Your task to perform on an android device: Empty the shopping cart on walmart. Add usb-c to usb-b to the cart on walmart Image 0: 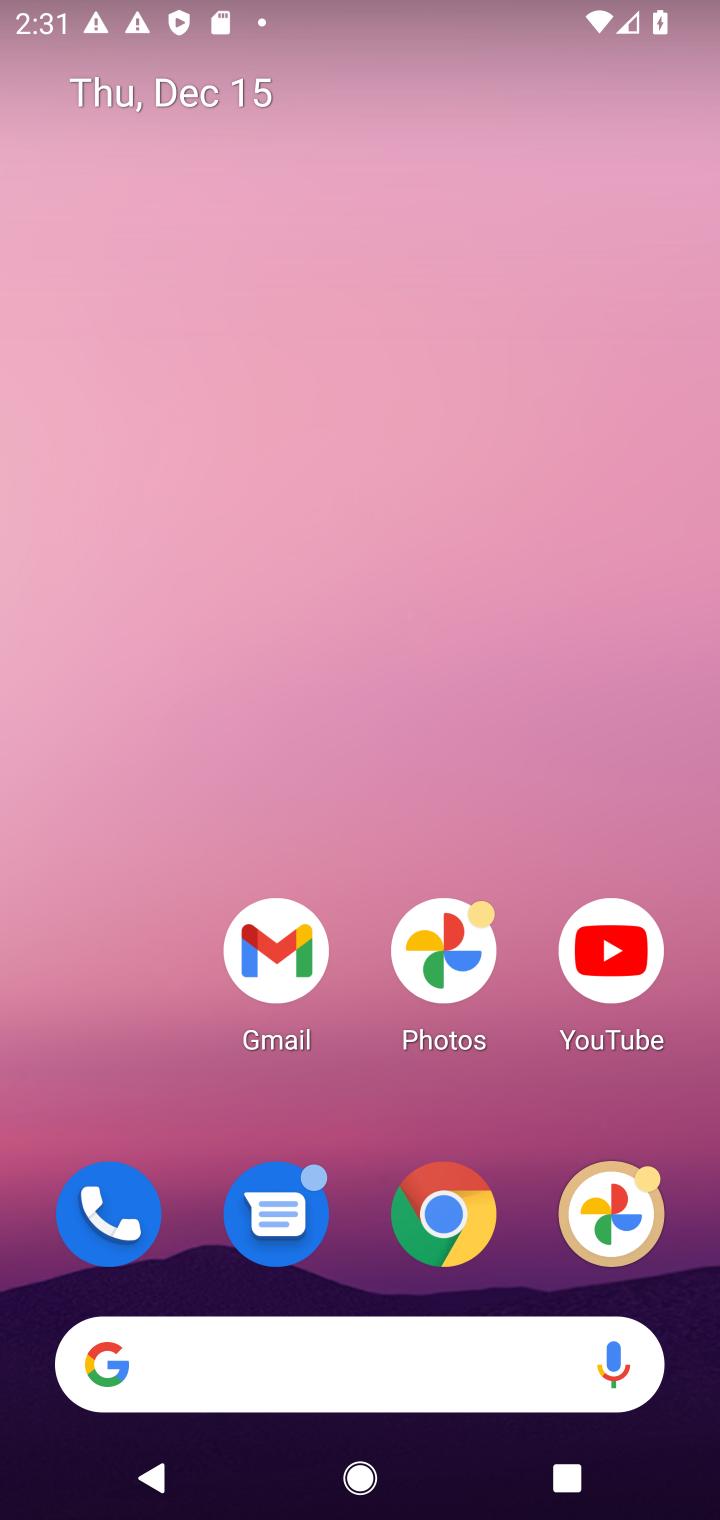
Step 0: click (432, 1223)
Your task to perform on an android device: Empty the shopping cart on walmart. Add usb-c to usb-b to the cart on walmart Image 1: 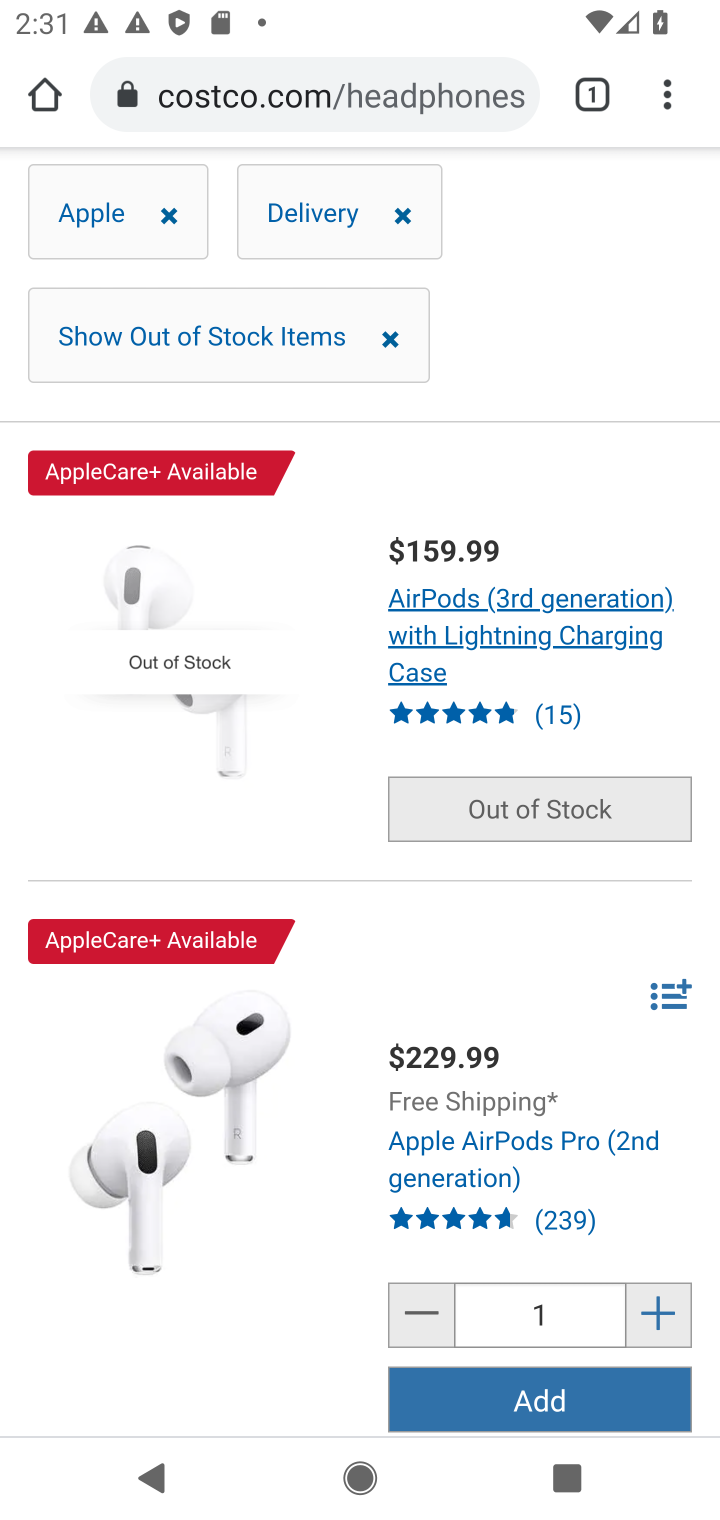
Step 1: click (222, 101)
Your task to perform on an android device: Empty the shopping cart on walmart. Add usb-c to usb-b to the cart on walmart Image 2: 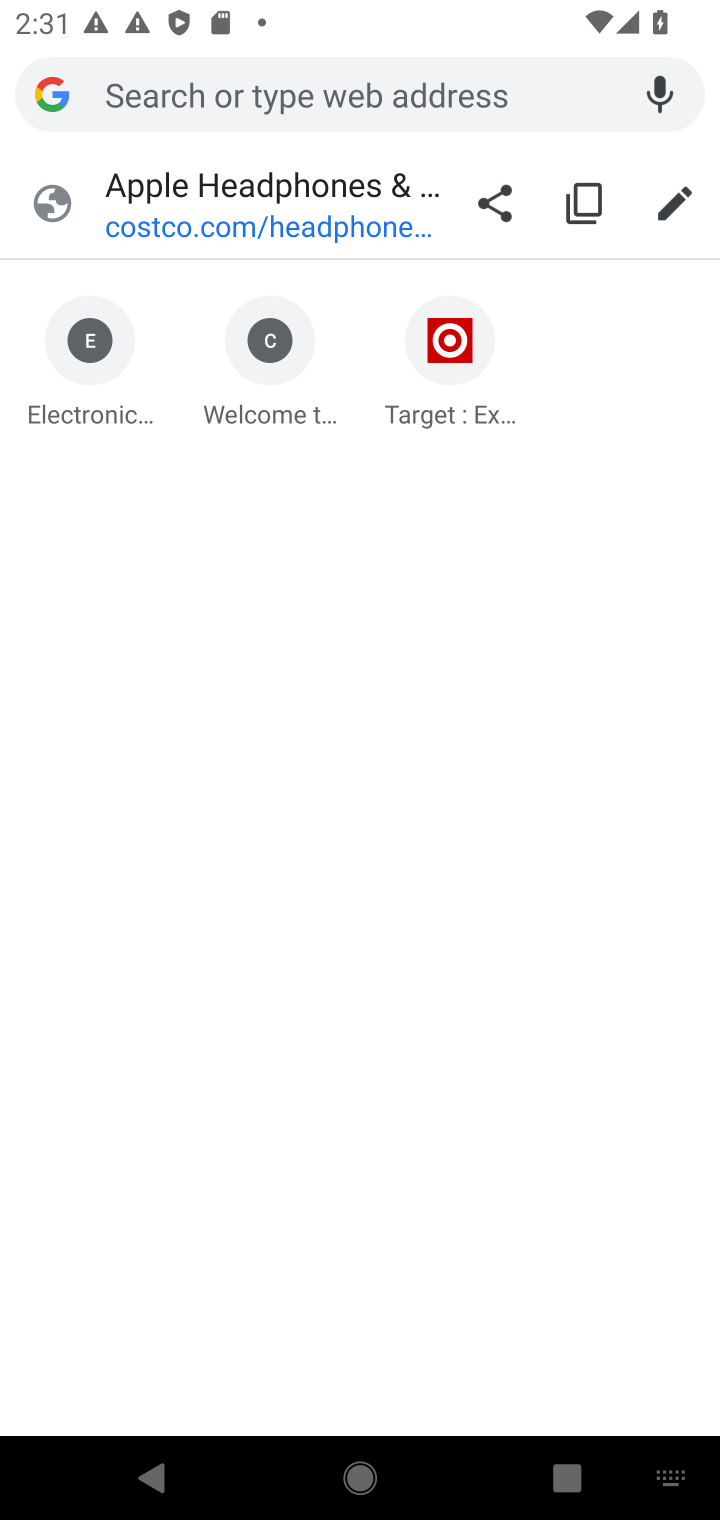
Step 2: type "walmart.com"
Your task to perform on an android device: Empty the shopping cart on walmart. Add usb-c to usb-b to the cart on walmart Image 3: 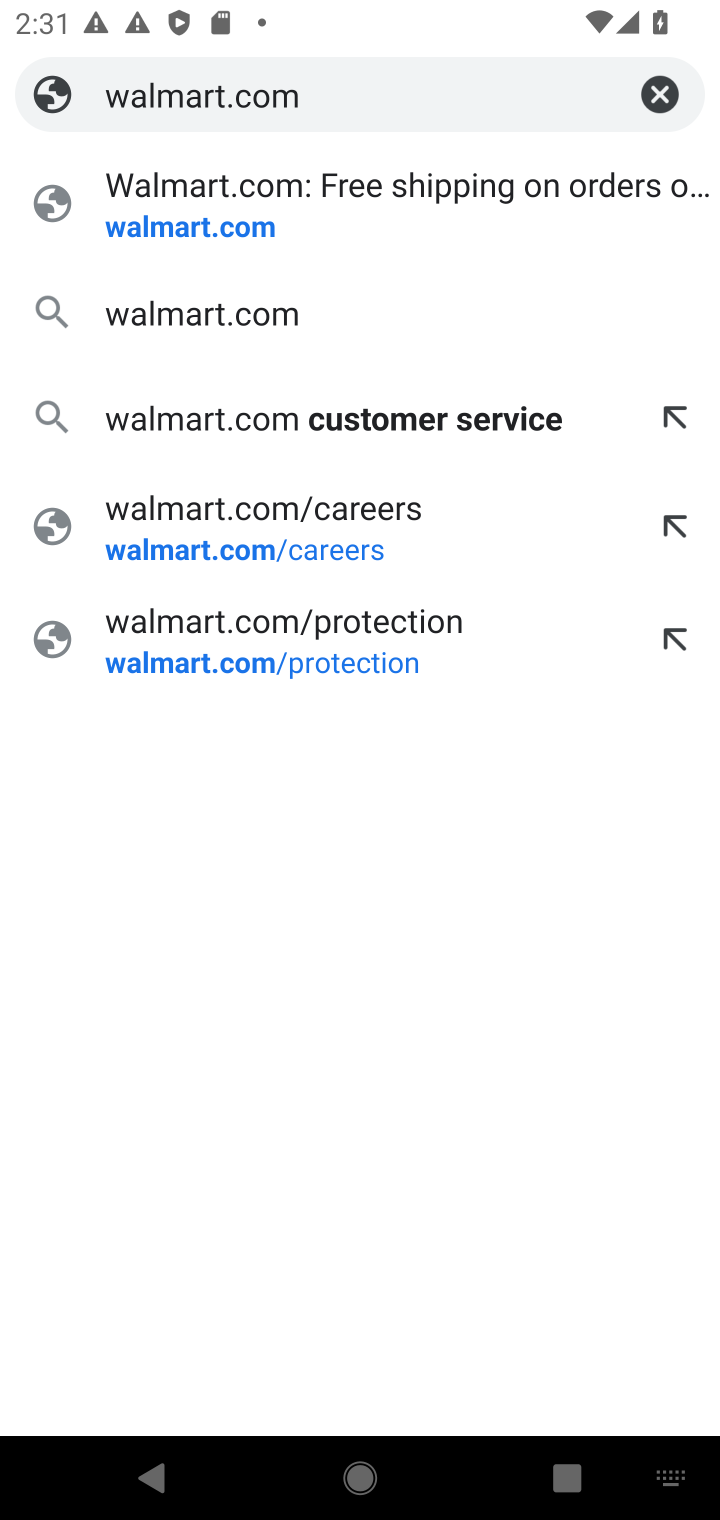
Step 3: click (202, 226)
Your task to perform on an android device: Empty the shopping cart on walmart. Add usb-c to usb-b to the cart on walmart Image 4: 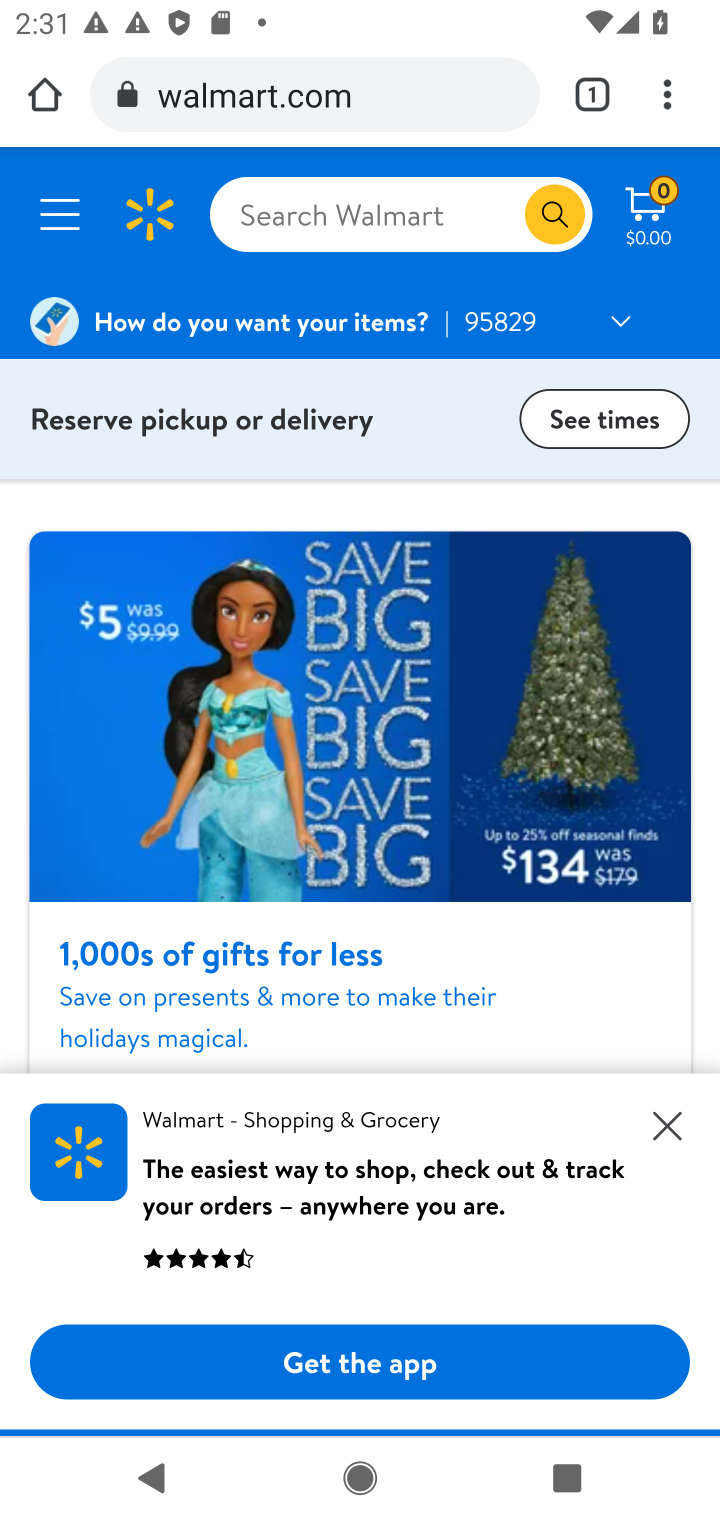
Step 4: click (644, 206)
Your task to perform on an android device: Empty the shopping cart on walmart. Add usb-c to usb-b to the cart on walmart Image 5: 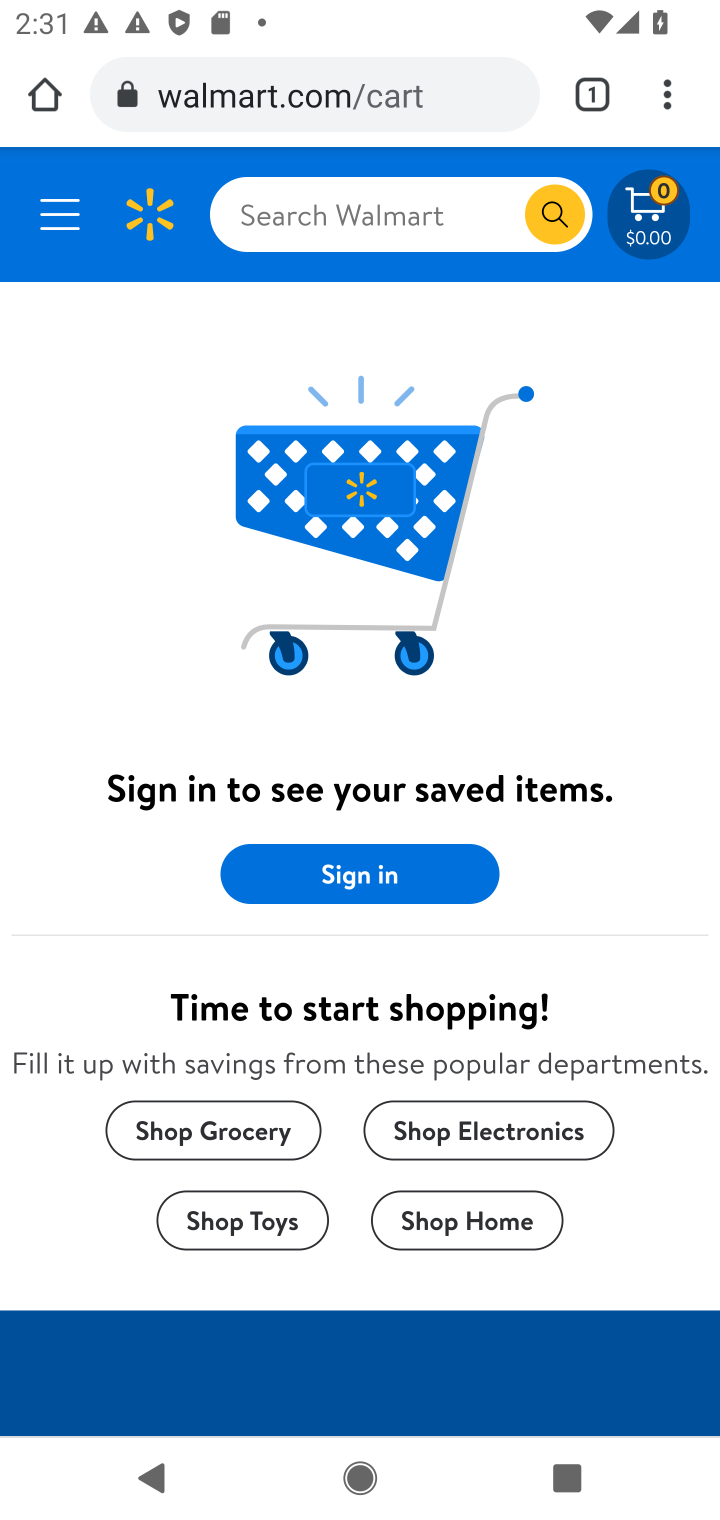
Step 5: click (390, 210)
Your task to perform on an android device: Empty the shopping cart on walmart. Add usb-c to usb-b to the cart on walmart Image 6: 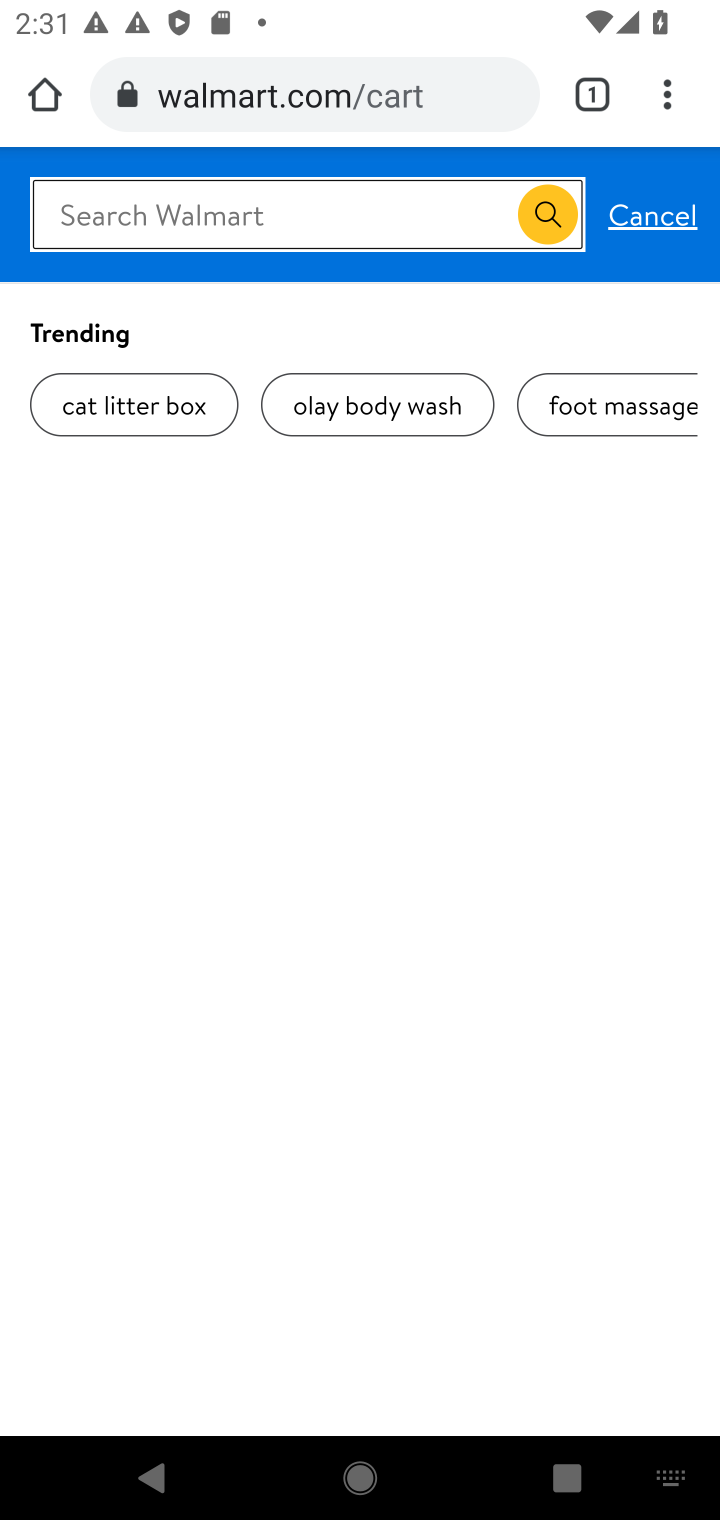
Step 6: type "usb-c to usb-b"
Your task to perform on an android device: Empty the shopping cart on walmart. Add usb-c to usb-b to the cart on walmart Image 7: 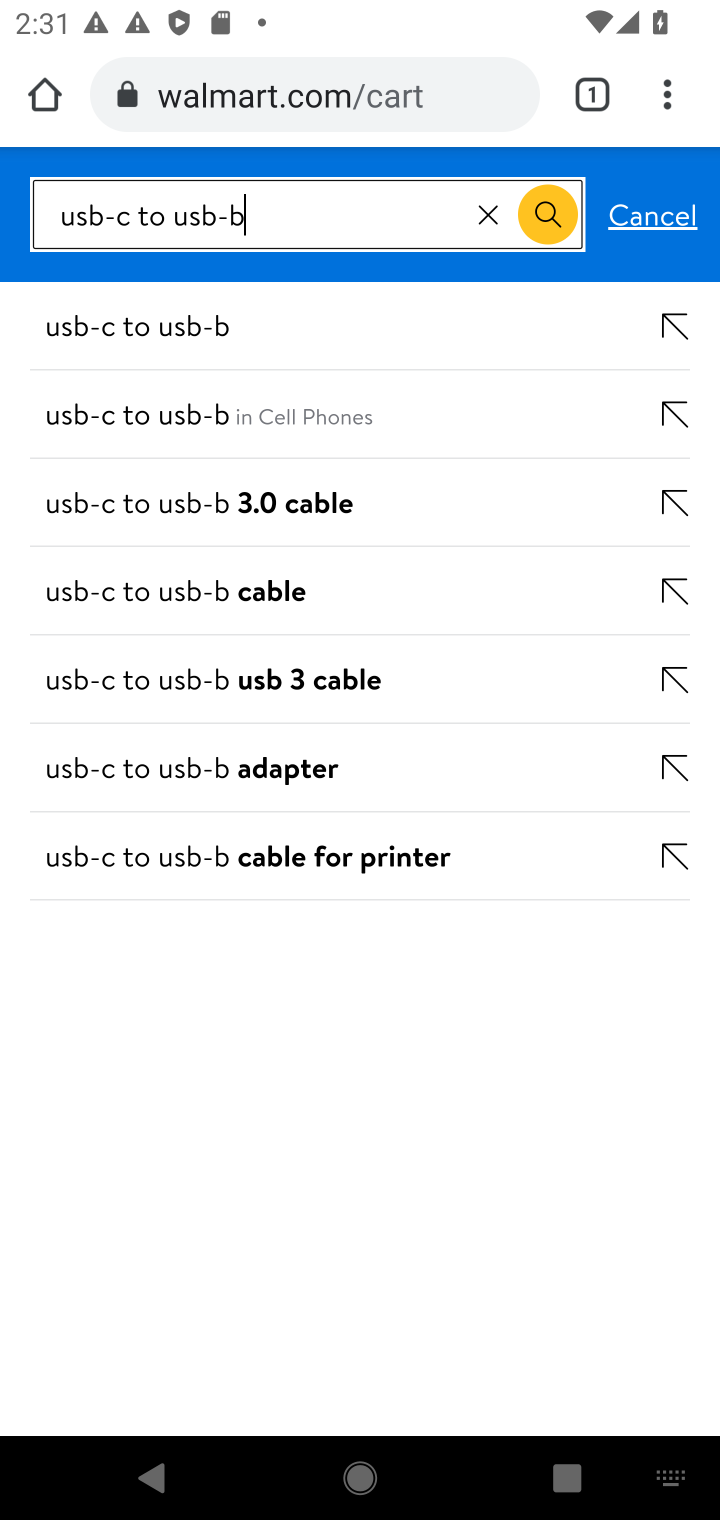
Step 7: click (201, 337)
Your task to perform on an android device: Empty the shopping cart on walmart. Add usb-c to usb-b to the cart on walmart Image 8: 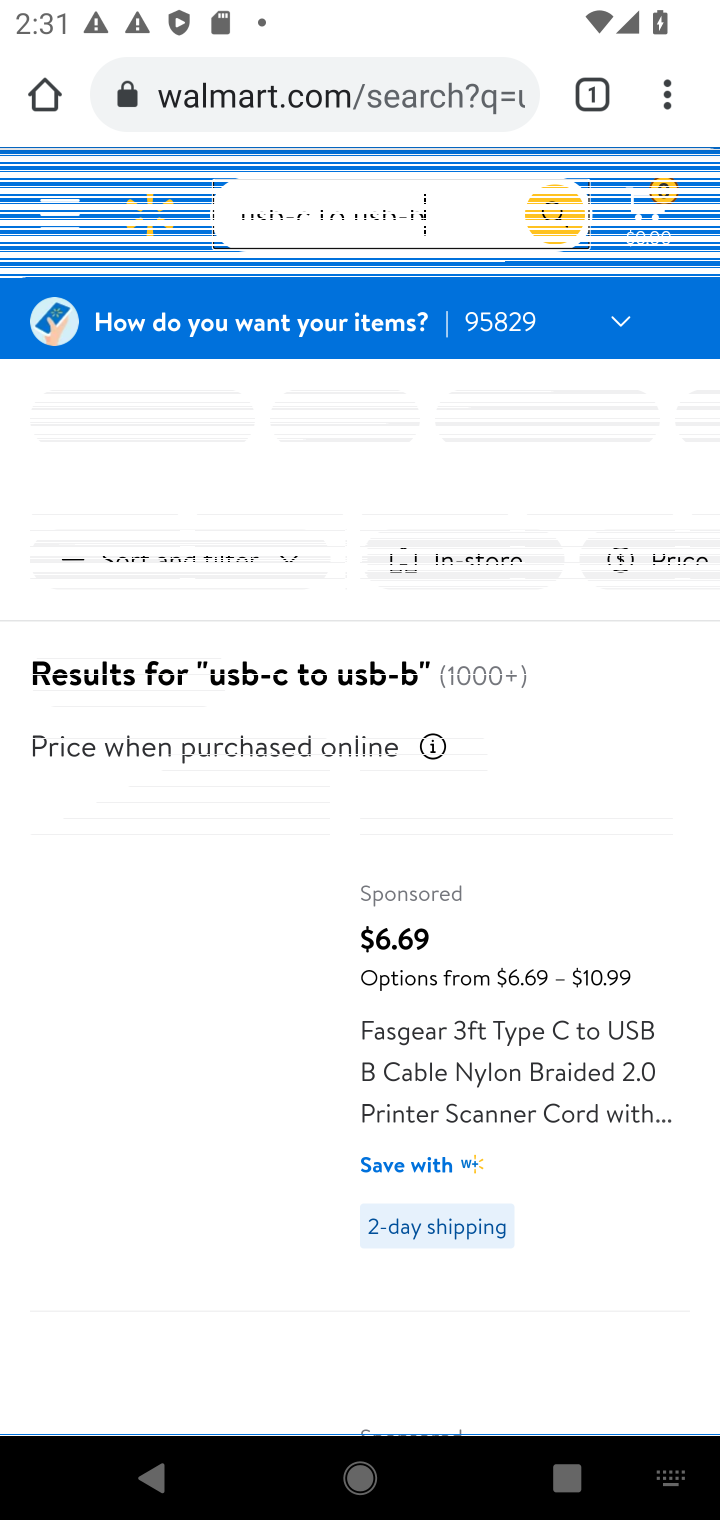
Step 8: drag from (348, 743) to (370, 363)
Your task to perform on an android device: Empty the shopping cart on walmart. Add usb-c to usb-b to the cart on walmart Image 9: 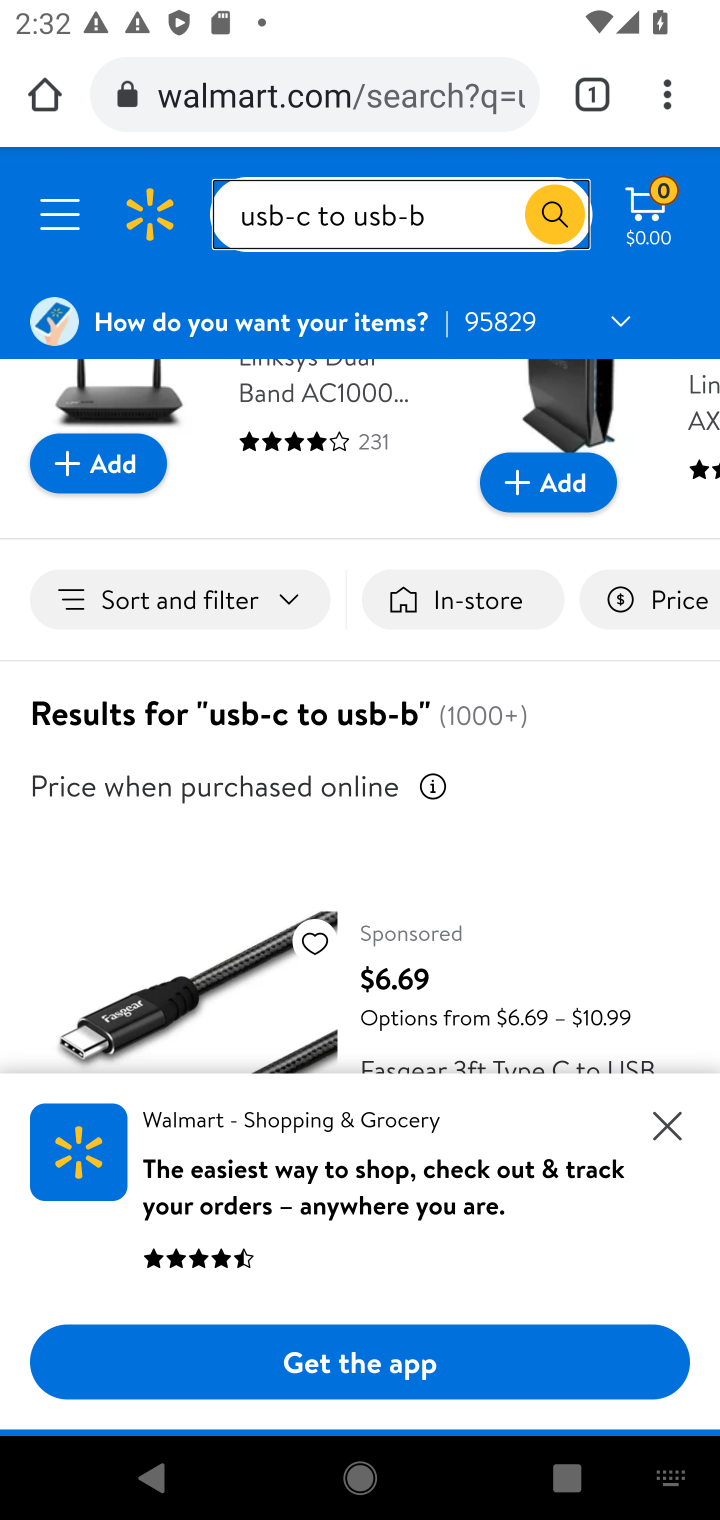
Step 9: drag from (414, 652) to (418, 401)
Your task to perform on an android device: Empty the shopping cart on walmart. Add usb-c to usb-b to the cart on walmart Image 10: 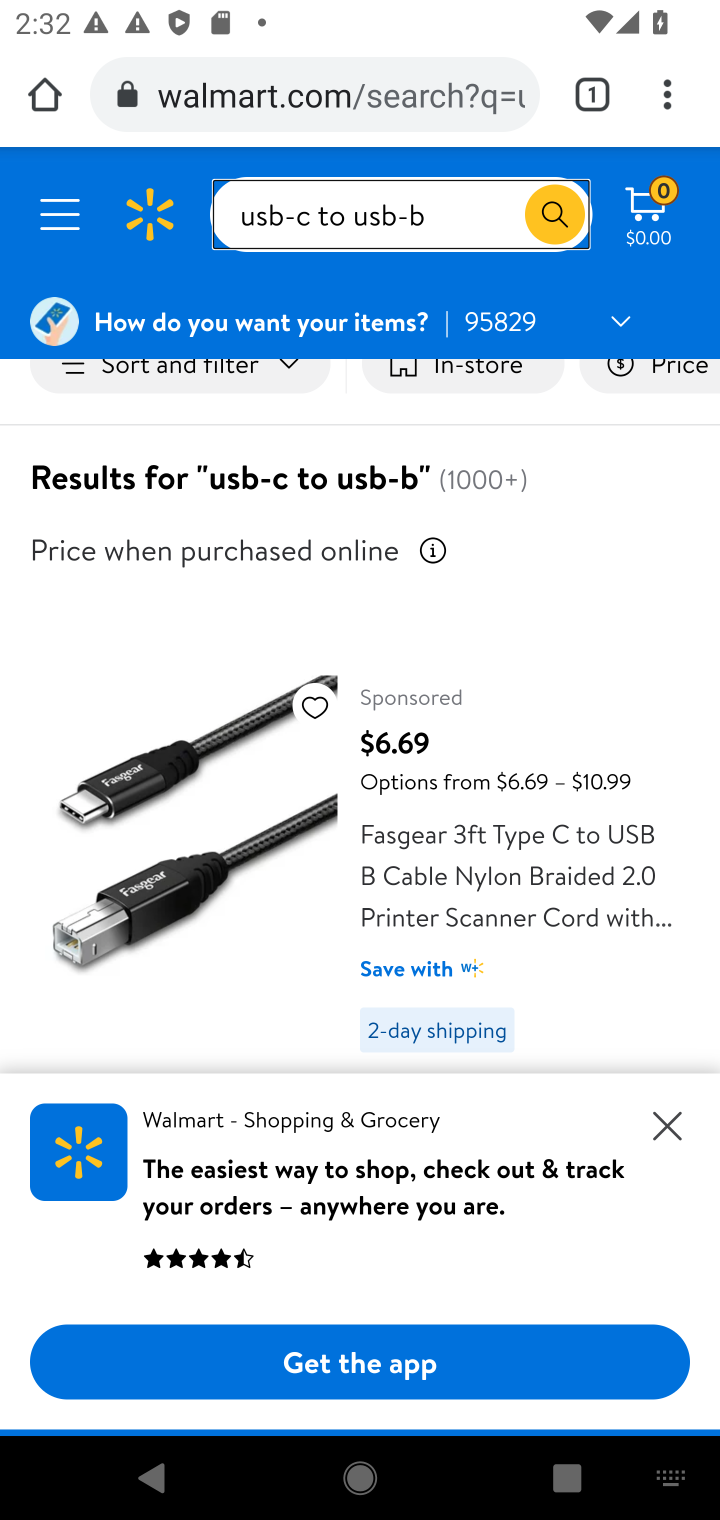
Step 10: drag from (340, 953) to (328, 564)
Your task to perform on an android device: Empty the shopping cart on walmart. Add usb-c to usb-b to the cart on walmart Image 11: 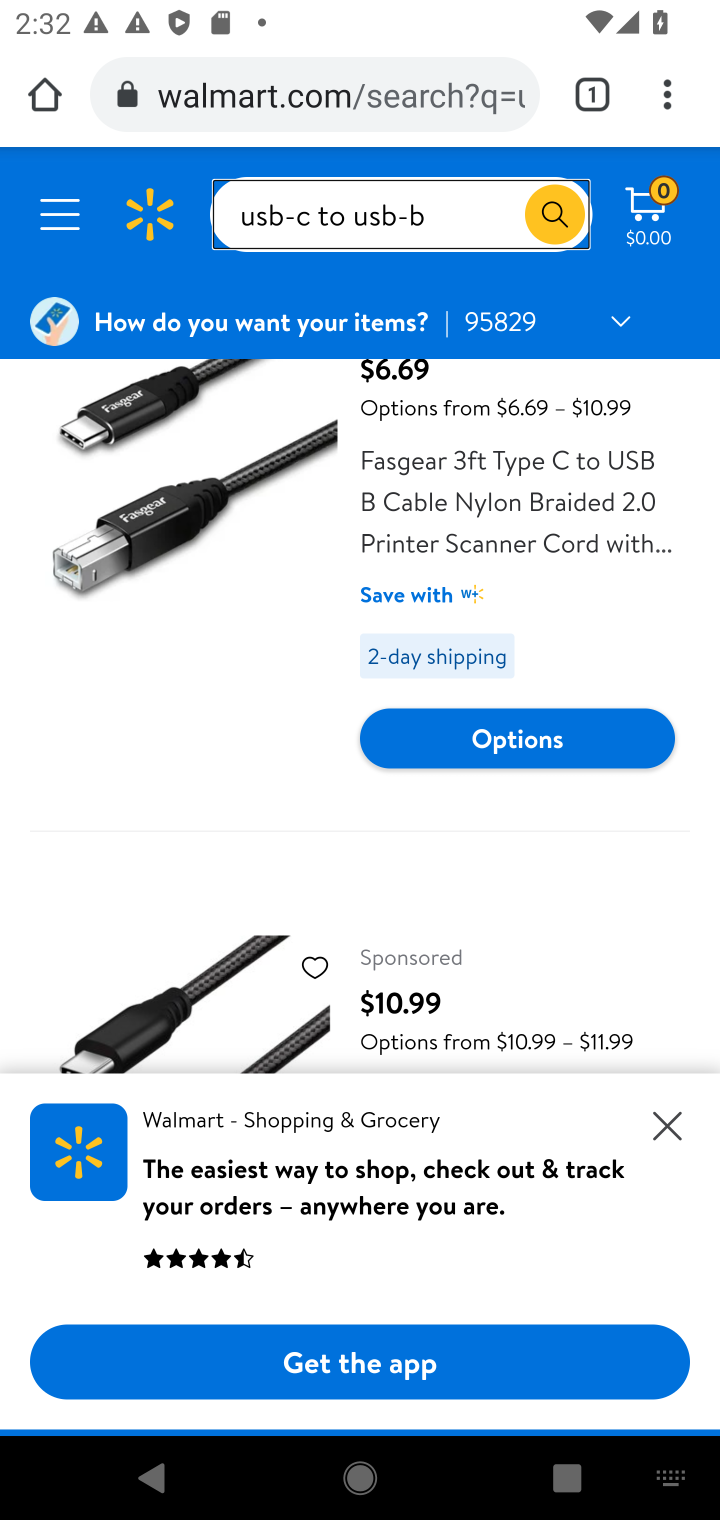
Step 11: drag from (327, 880) to (327, 527)
Your task to perform on an android device: Empty the shopping cart on walmart. Add usb-c to usb-b to the cart on walmart Image 12: 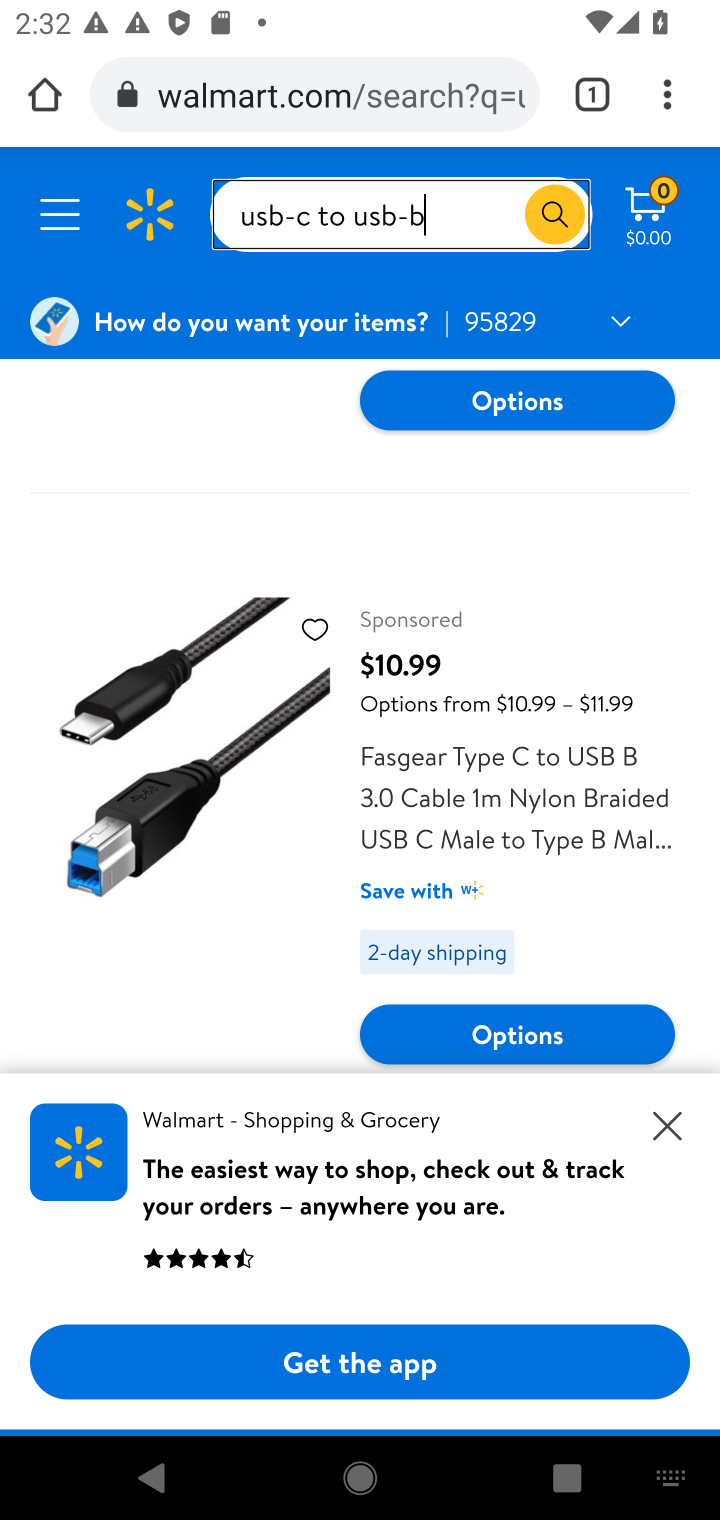
Step 12: click (674, 1129)
Your task to perform on an android device: Empty the shopping cart on walmart. Add usb-c to usb-b to the cart on walmart Image 13: 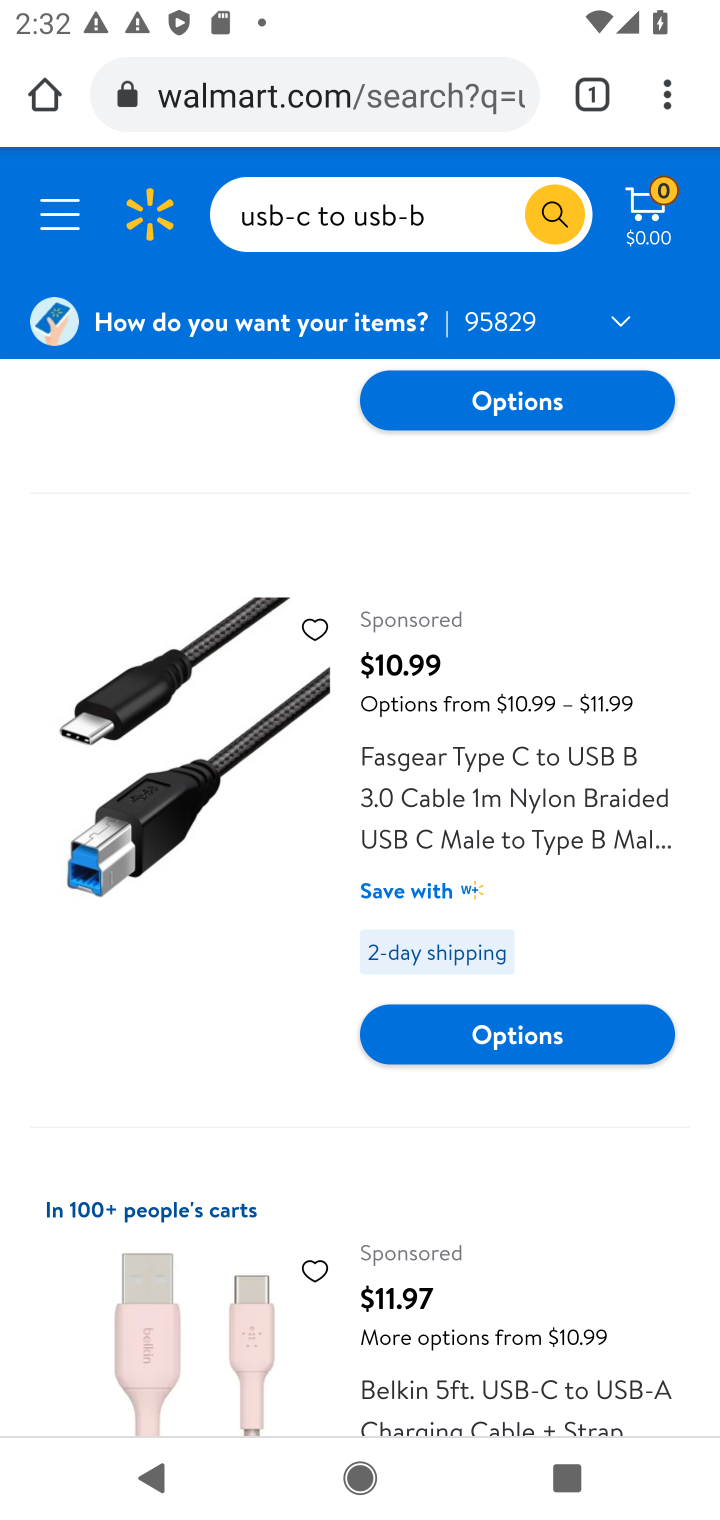
Step 13: drag from (318, 878) to (302, 541)
Your task to perform on an android device: Empty the shopping cart on walmart. Add usb-c to usb-b to the cart on walmart Image 14: 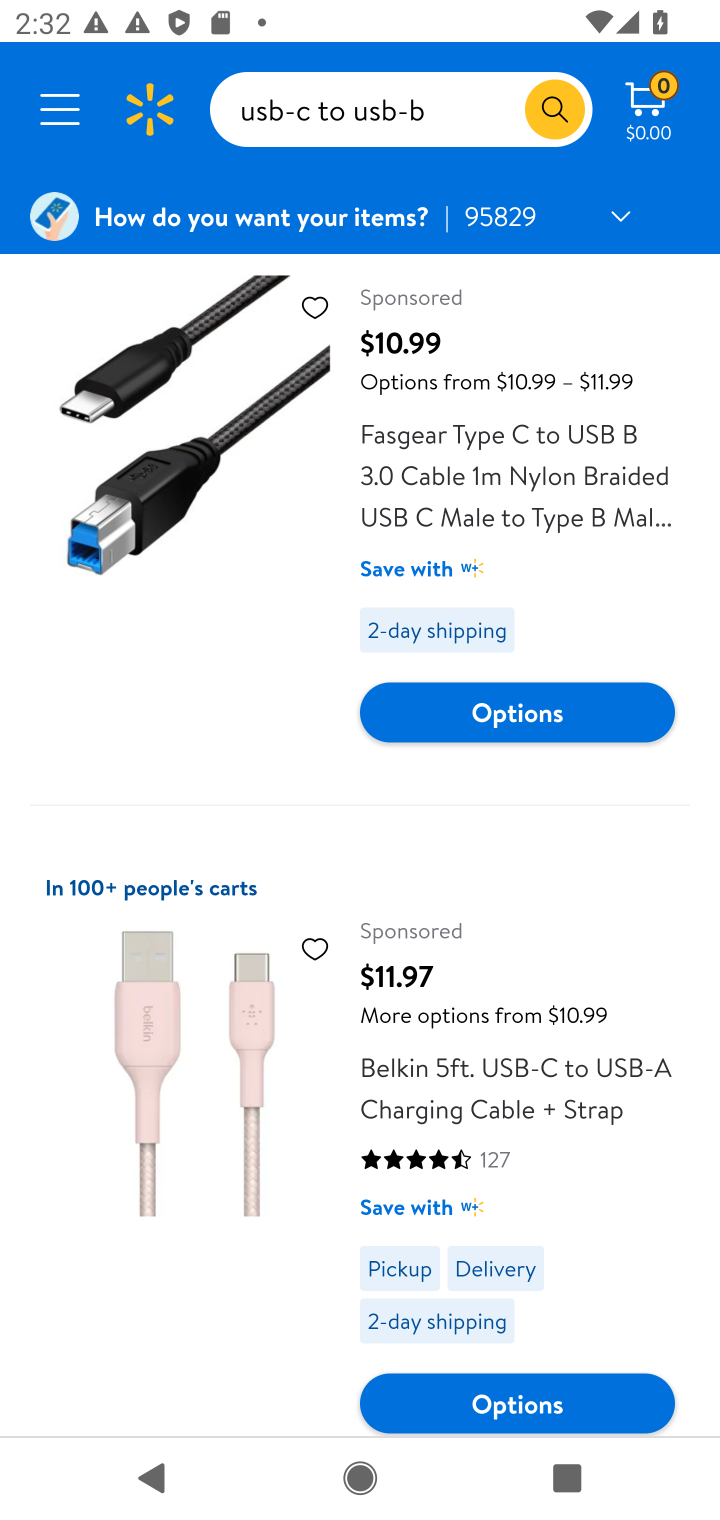
Step 14: drag from (257, 1100) to (239, 535)
Your task to perform on an android device: Empty the shopping cart on walmart. Add usb-c to usb-b to the cart on walmart Image 15: 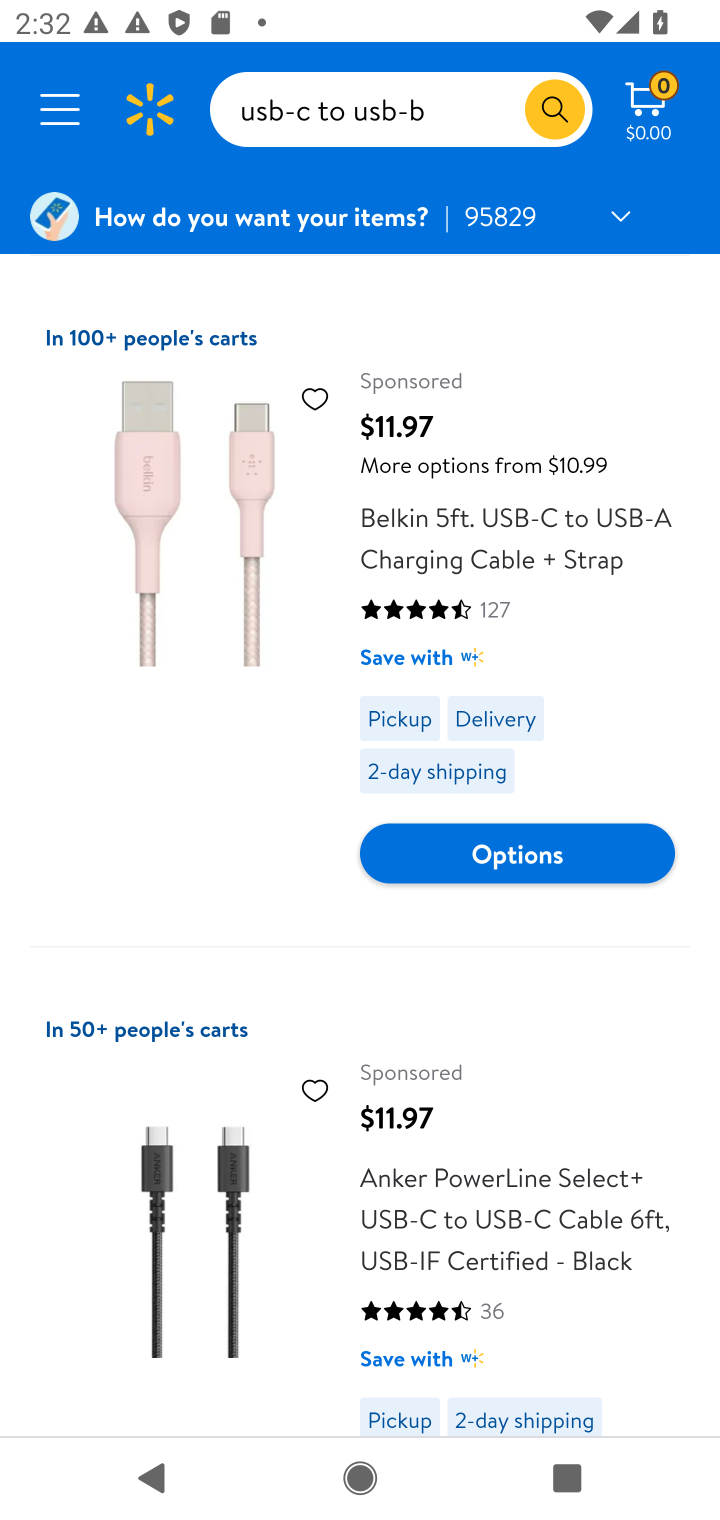
Step 15: drag from (356, 1167) to (335, 866)
Your task to perform on an android device: Empty the shopping cart on walmart. Add usb-c to usb-b to the cart on walmart Image 16: 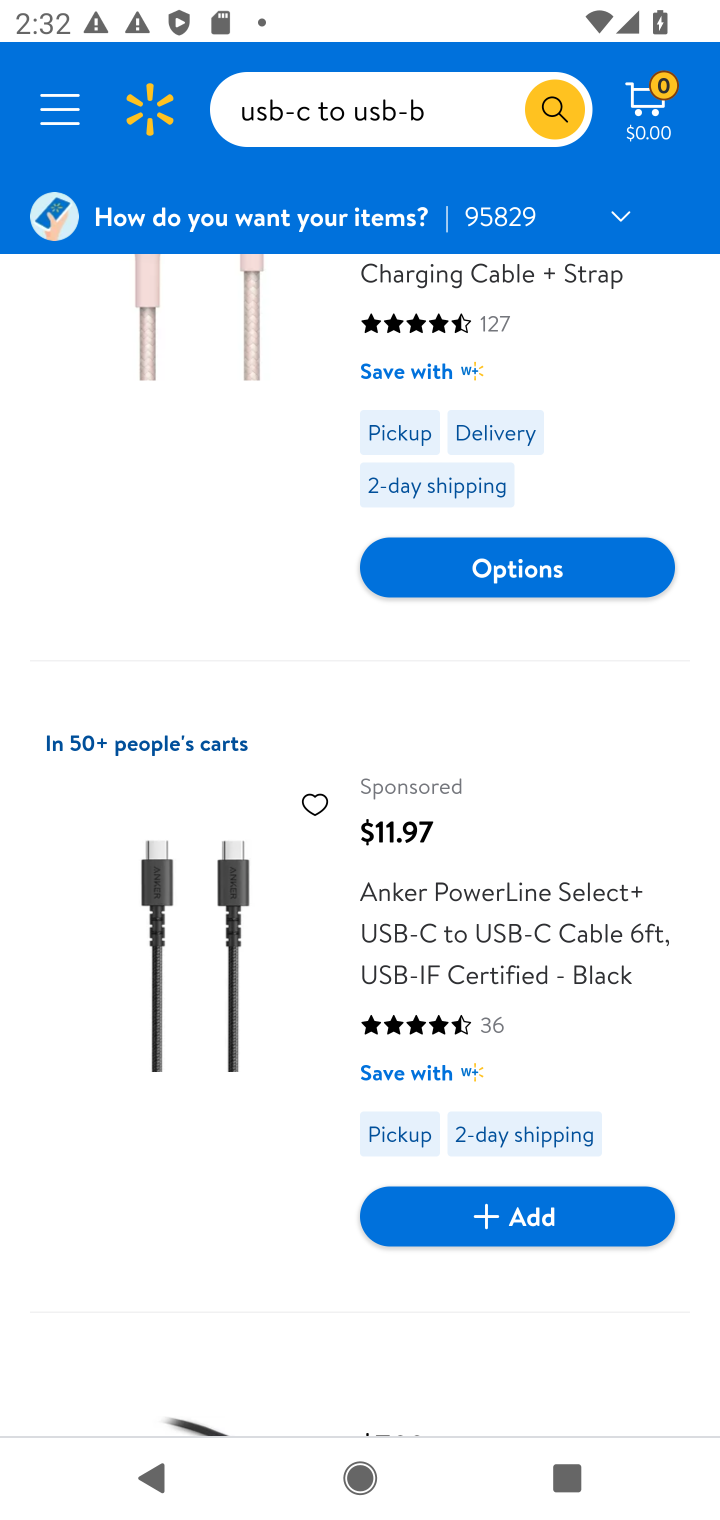
Step 16: drag from (309, 1241) to (242, 602)
Your task to perform on an android device: Empty the shopping cart on walmart. Add usb-c to usb-b to the cart on walmart Image 17: 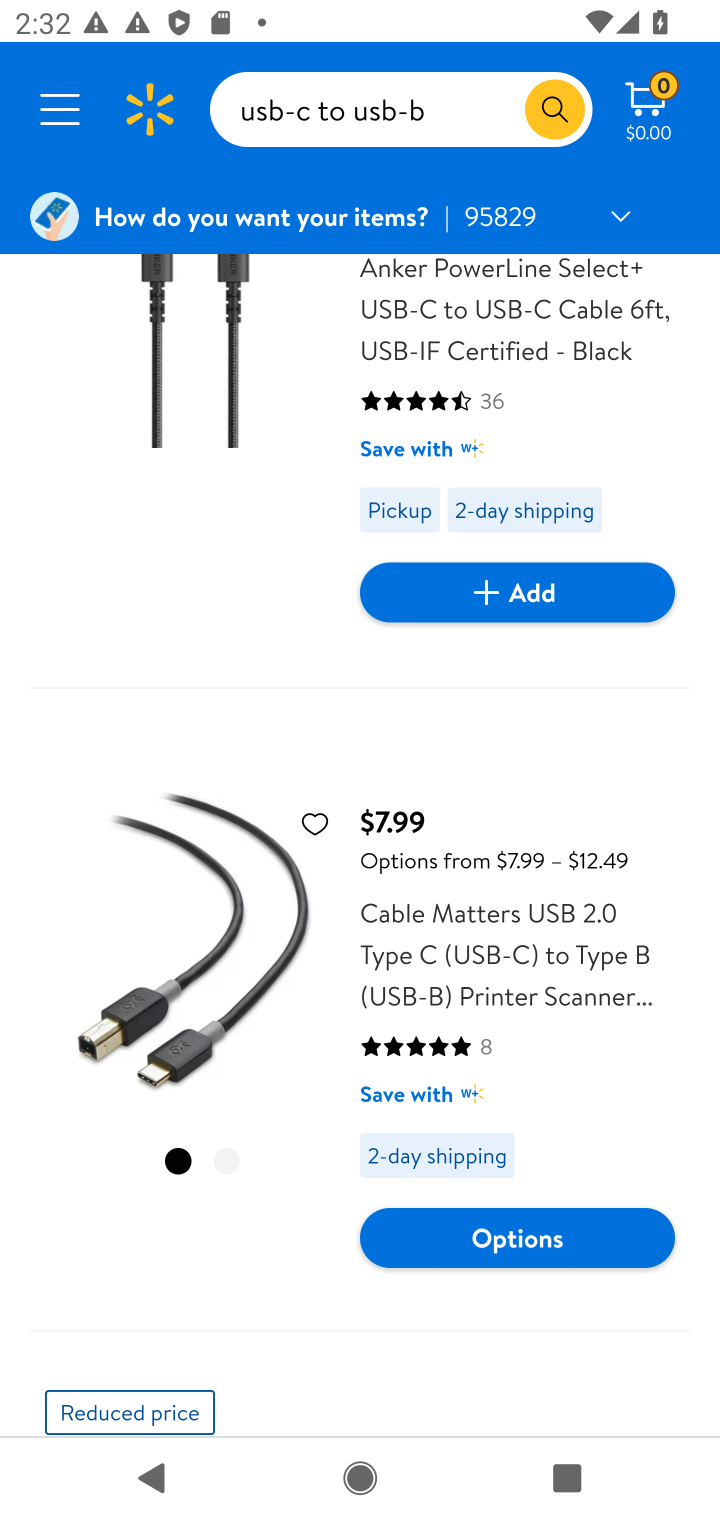
Step 17: click (524, 992)
Your task to perform on an android device: Empty the shopping cart on walmart. Add usb-c to usb-b to the cart on walmart Image 18: 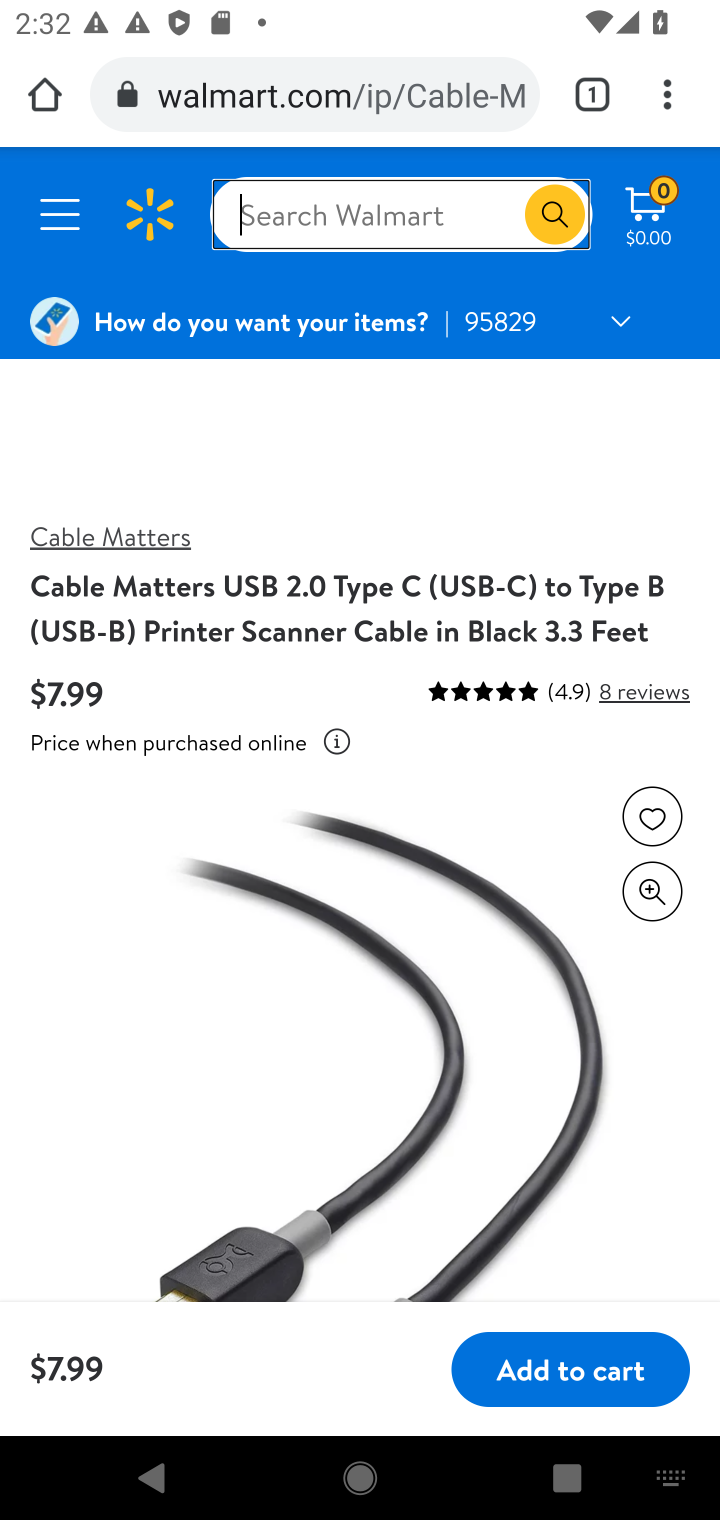
Step 18: click (591, 1381)
Your task to perform on an android device: Empty the shopping cart on walmart. Add usb-c to usb-b to the cart on walmart Image 19: 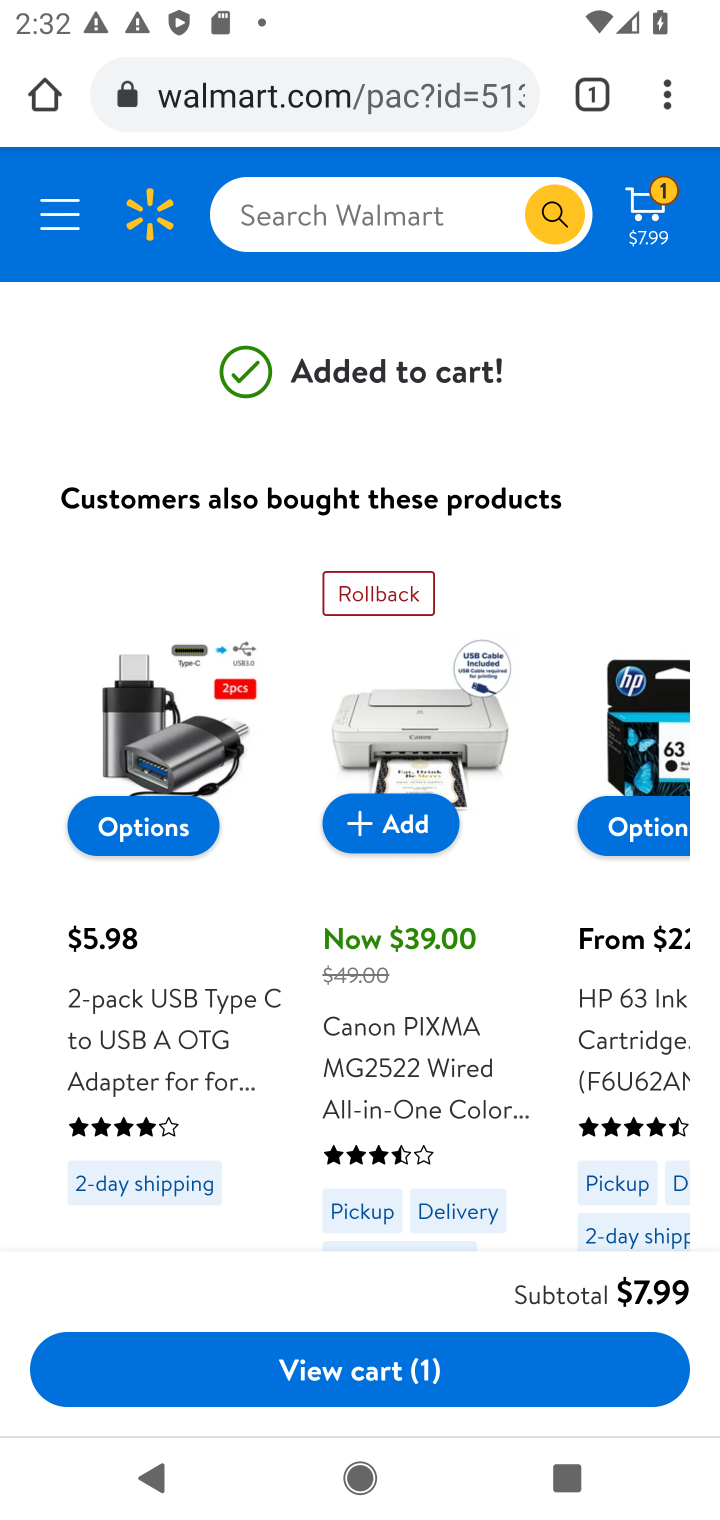
Step 19: task complete